Your task to perform on an android device: Open the stopwatch Image 0: 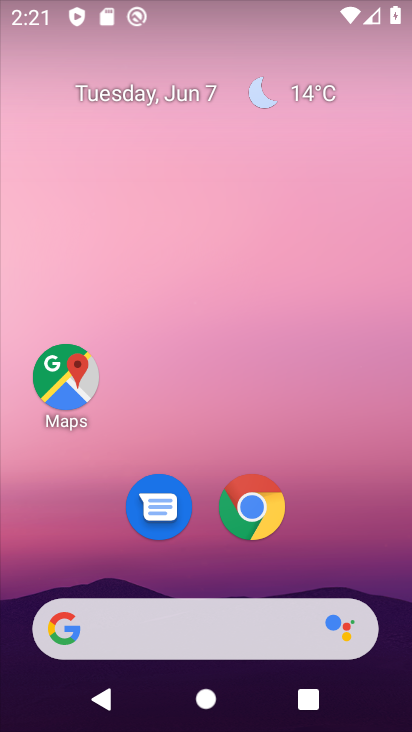
Step 0: drag from (327, 517) to (322, 127)
Your task to perform on an android device: Open the stopwatch Image 1: 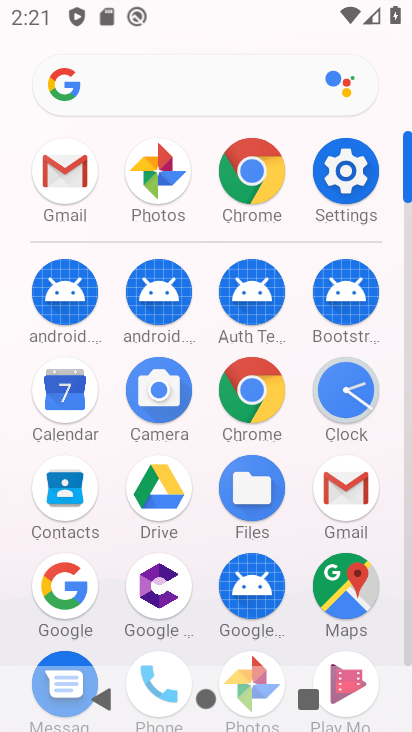
Step 1: click (347, 388)
Your task to perform on an android device: Open the stopwatch Image 2: 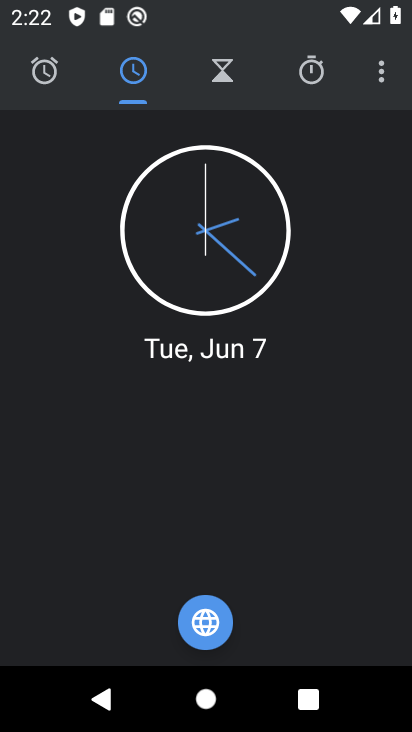
Step 2: click (342, 79)
Your task to perform on an android device: Open the stopwatch Image 3: 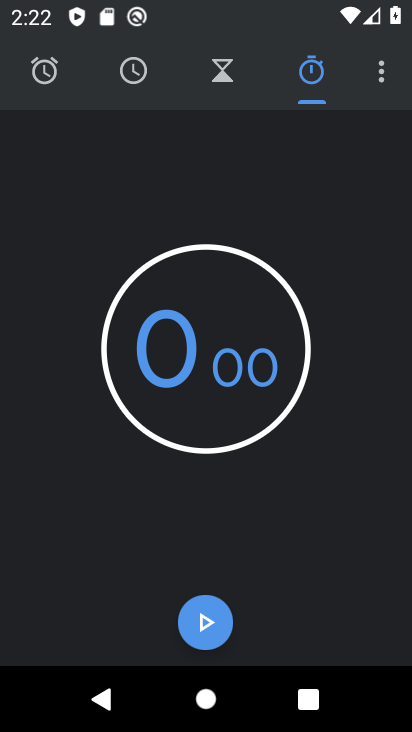
Step 3: task complete